Your task to perform on an android device: Go to CNN.com Image 0: 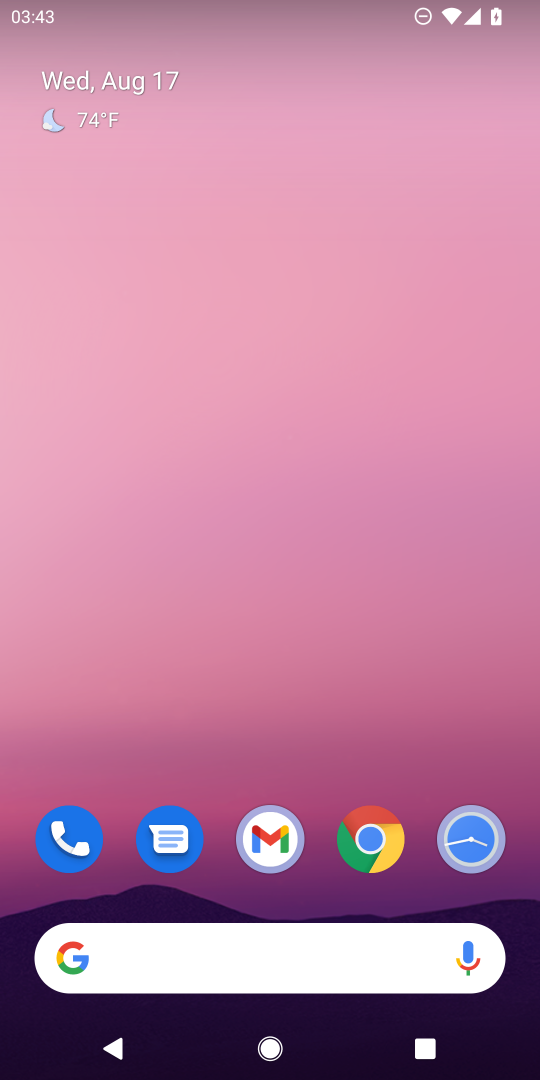
Step 0: click (372, 842)
Your task to perform on an android device: Go to CNN.com Image 1: 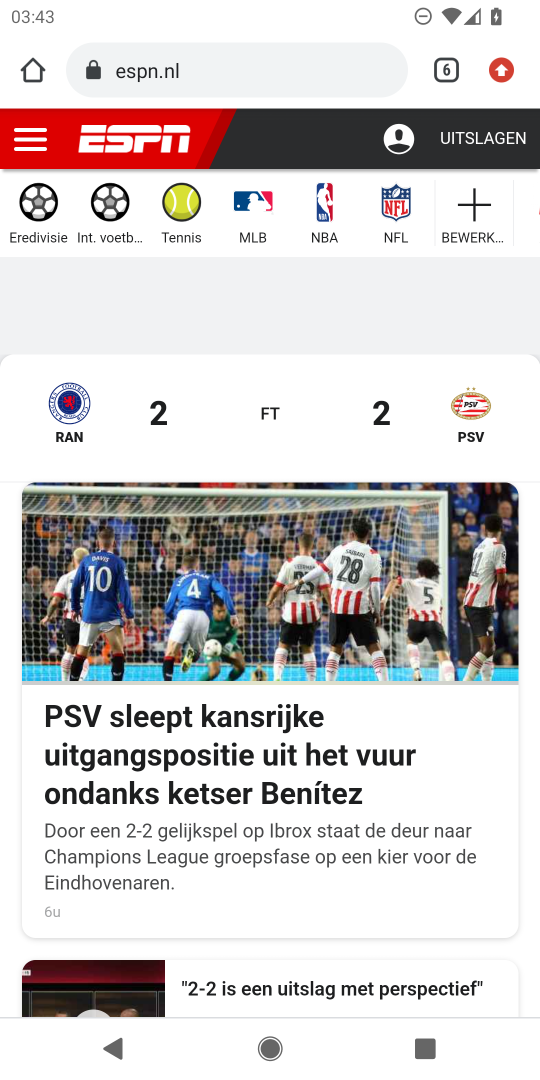
Step 1: click (505, 74)
Your task to perform on an android device: Go to CNN.com Image 2: 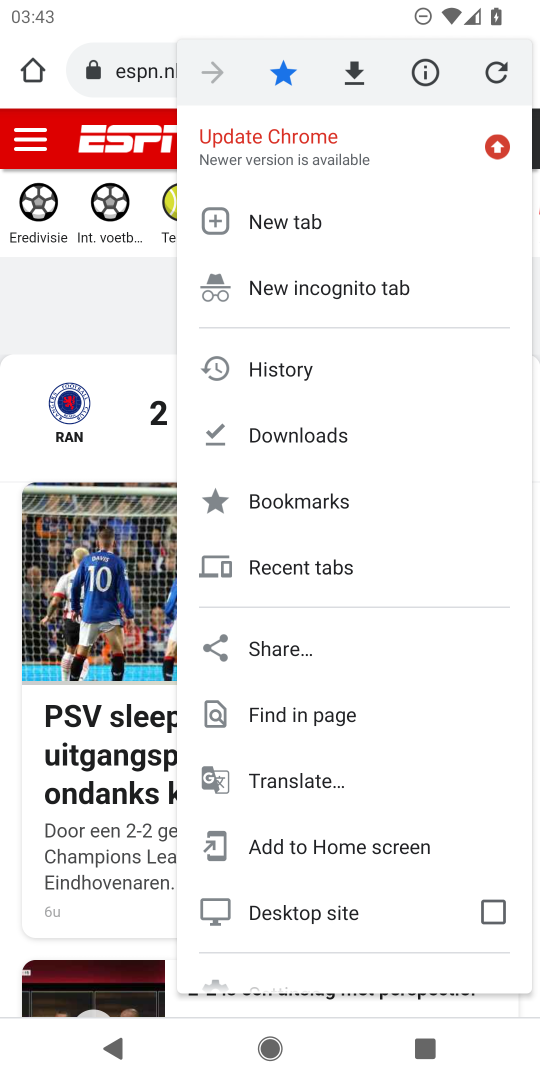
Step 2: click (271, 211)
Your task to perform on an android device: Go to CNN.com Image 3: 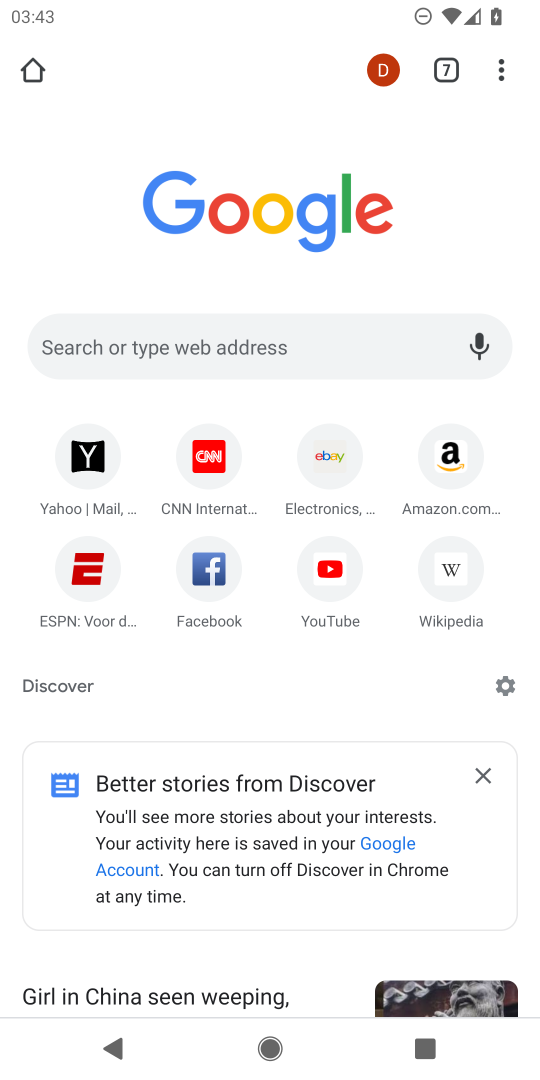
Step 3: click (211, 463)
Your task to perform on an android device: Go to CNN.com Image 4: 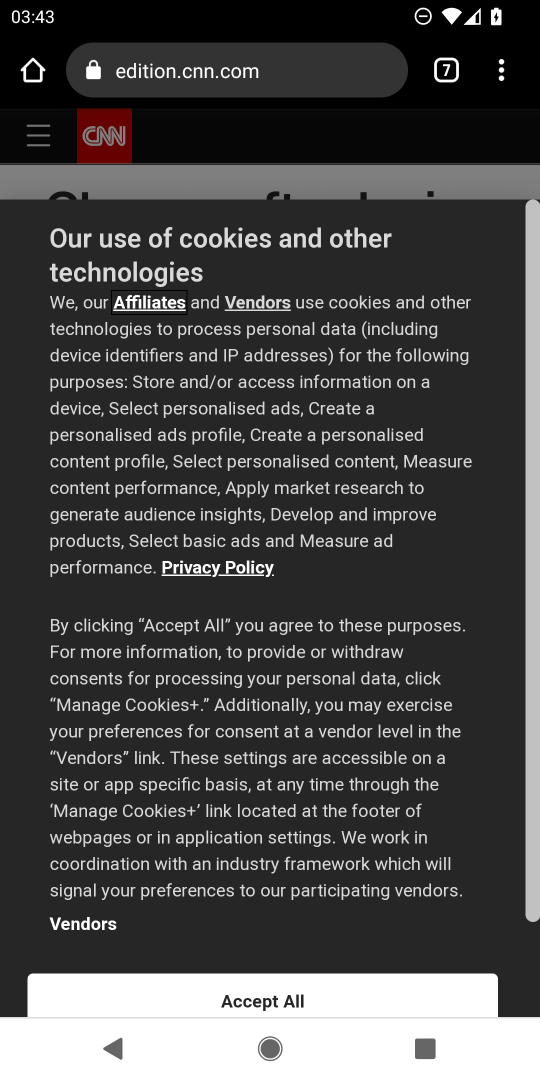
Step 4: task complete